Your task to perform on an android device: Open display settings Image 0: 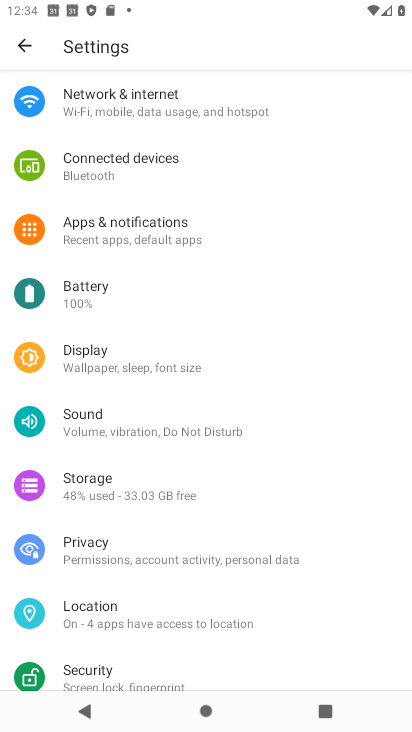
Step 0: click (85, 373)
Your task to perform on an android device: Open display settings Image 1: 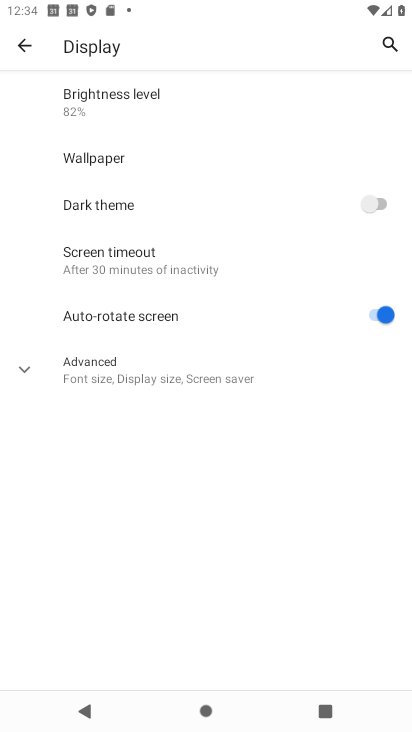
Step 1: task complete